Your task to perform on an android device: Go to Reddit.com Image 0: 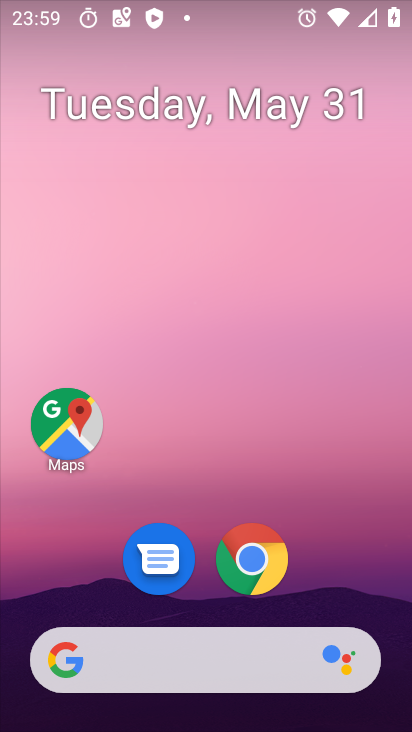
Step 0: drag from (324, 516) to (325, 83)
Your task to perform on an android device: Go to Reddit.com Image 1: 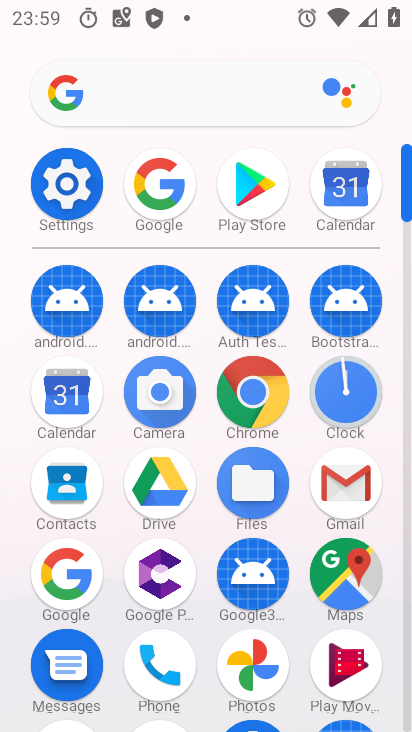
Step 1: click (161, 183)
Your task to perform on an android device: Go to Reddit.com Image 2: 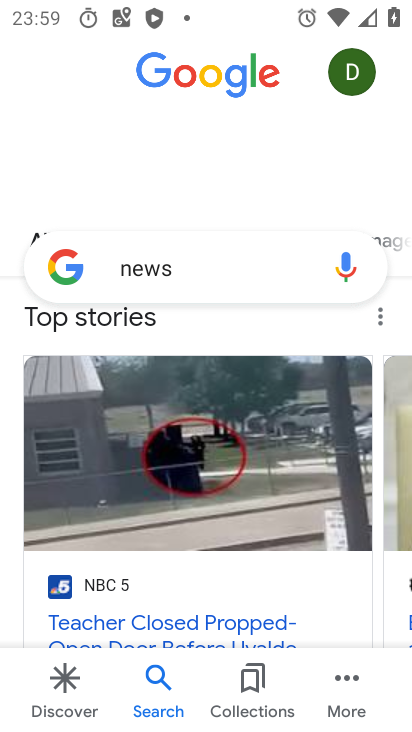
Step 2: click (219, 272)
Your task to perform on an android device: Go to Reddit.com Image 3: 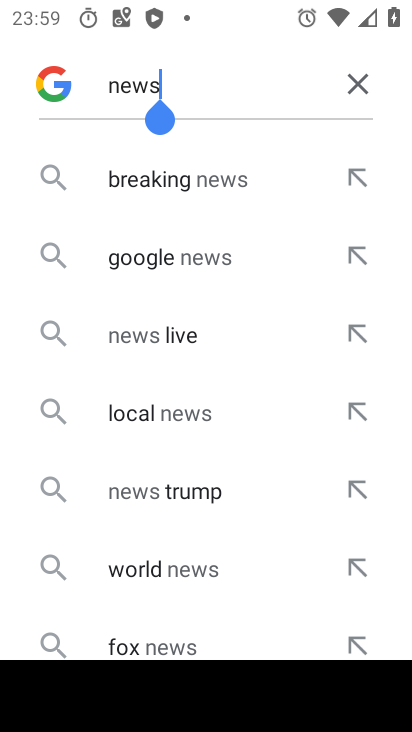
Step 3: click (344, 85)
Your task to perform on an android device: Go to Reddit.com Image 4: 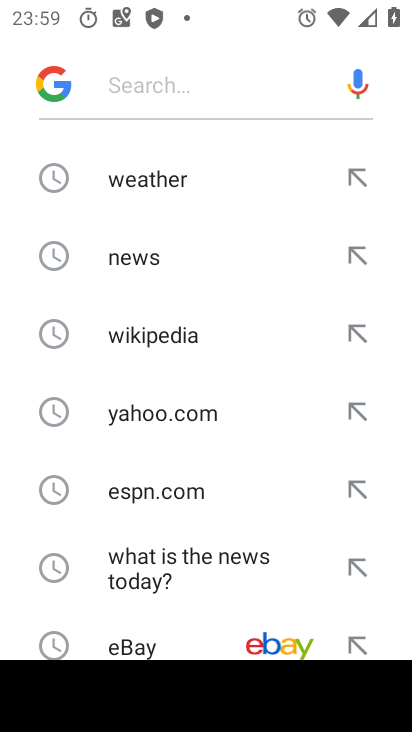
Step 4: drag from (249, 510) to (267, 166)
Your task to perform on an android device: Go to Reddit.com Image 5: 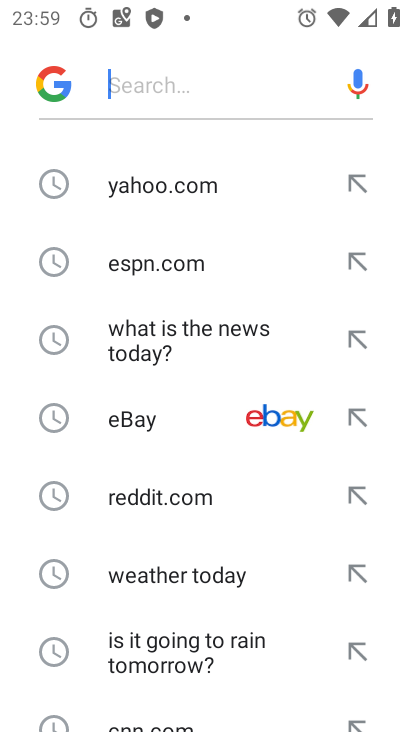
Step 5: click (187, 493)
Your task to perform on an android device: Go to Reddit.com Image 6: 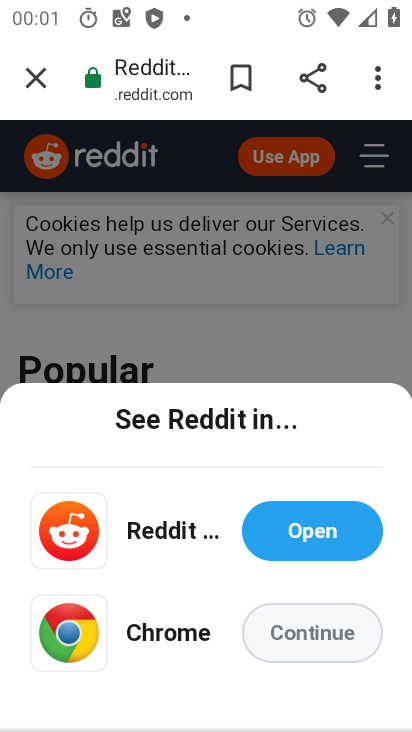
Step 6: task complete